Your task to perform on an android device: Search for hotels in Paris Image 0: 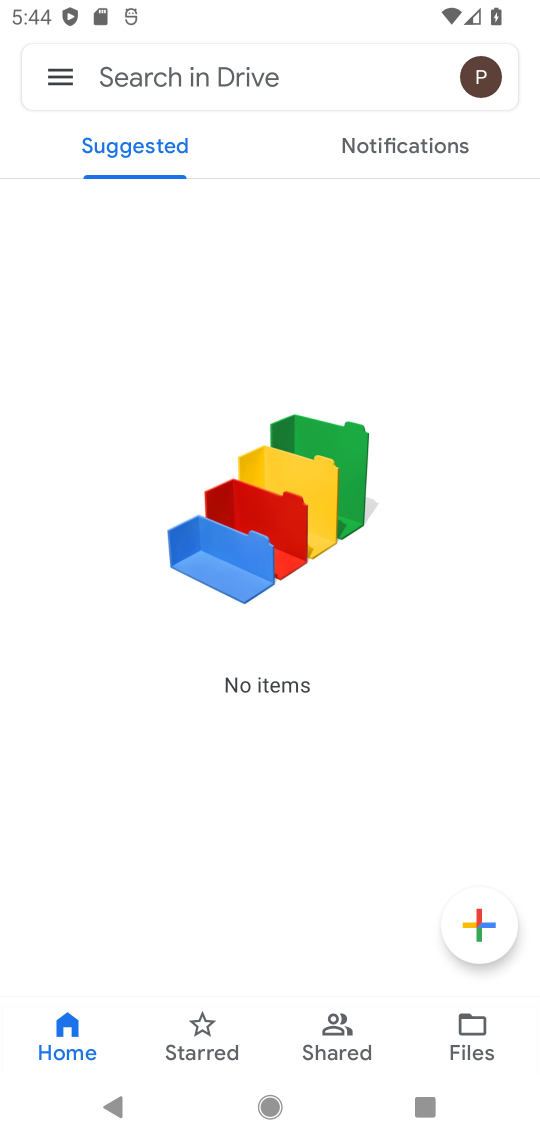
Step 0: press home button
Your task to perform on an android device: Search for hotels in Paris Image 1: 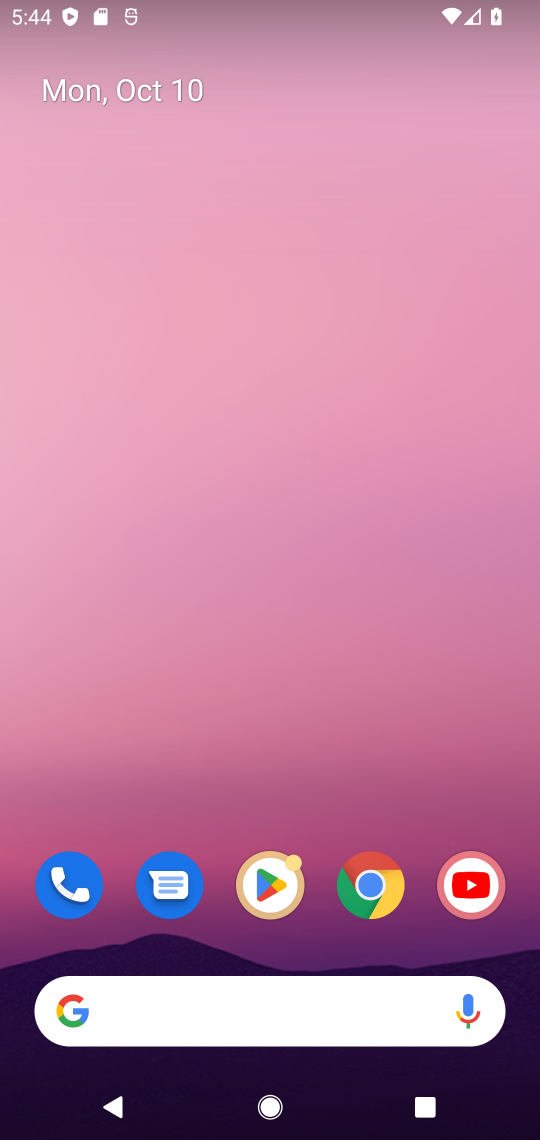
Step 1: click (358, 890)
Your task to perform on an android device: Search for hotels in Paris Image 2: 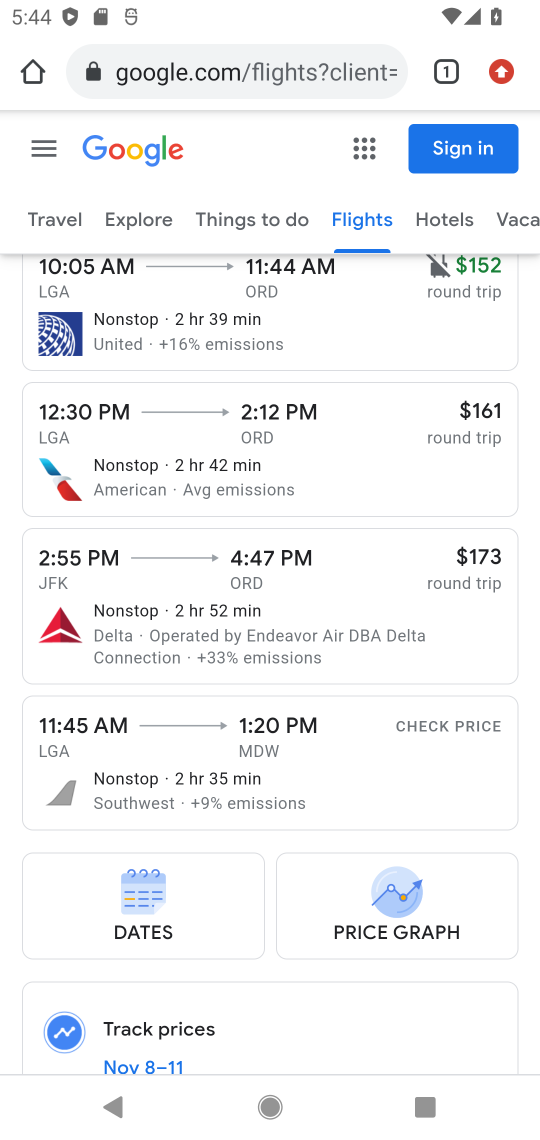
Step 2: click (304, 62)
Your task to perform on an android device: Search for hotels in Paris Image 3: 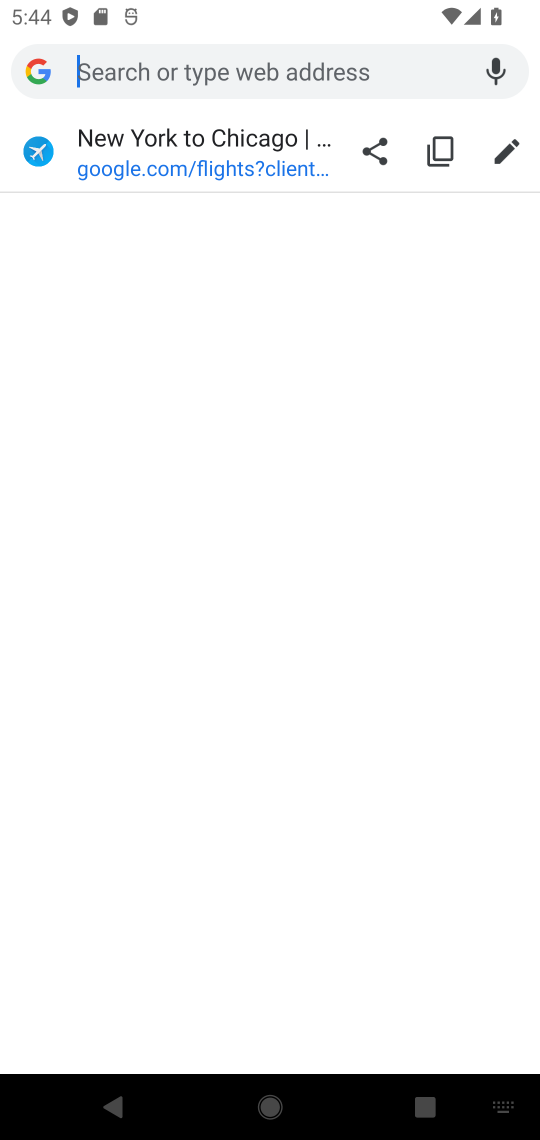
Step 3: type "hotels in Paris"
Your task to perform on an android device: Search for hotels in Paris Image 4: 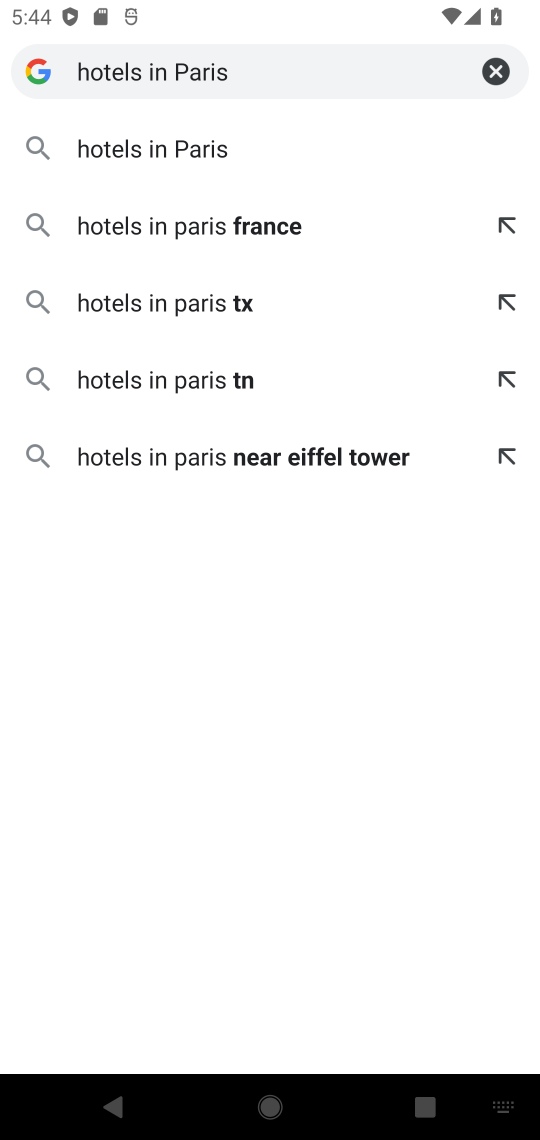
Step 4: click (289, 145)
Your task to perform on an android device: Search for hotels in Paris Image 5: 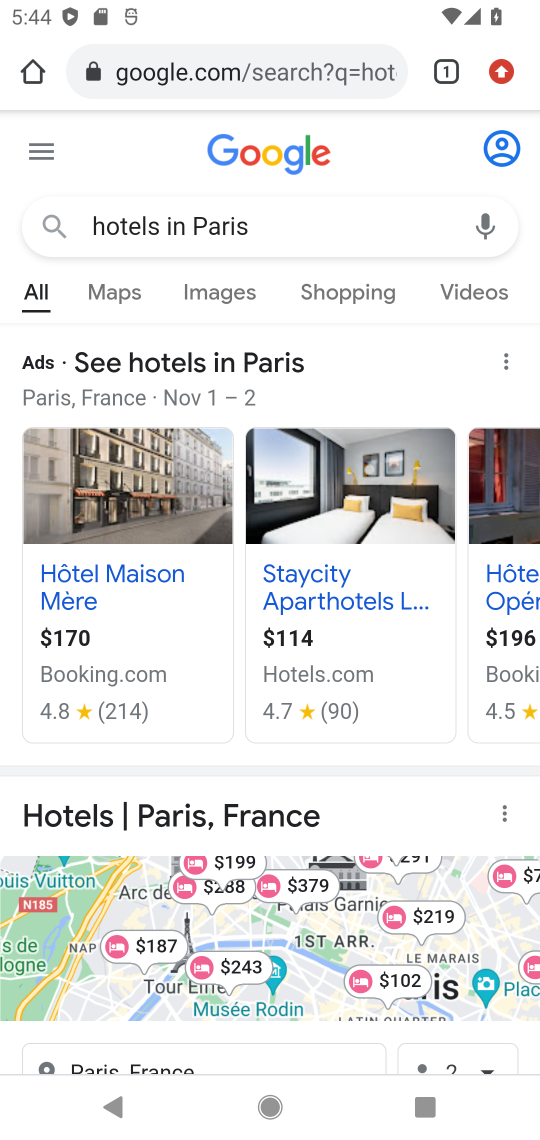
Step 5: drag from (219, 763) to (283, 365)
Your task to perform on an android device: Search for hotels in Paris Image 6: 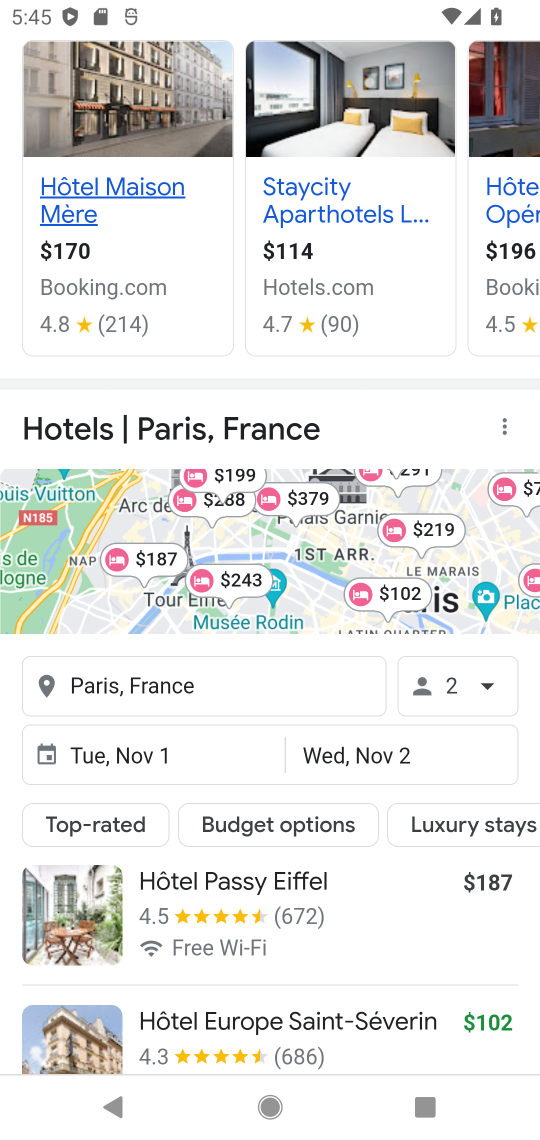
Step 6: drag from (377, 911) to (394, 350)
Your task to perform on an android device: Search for hotels in Paris Image 7: 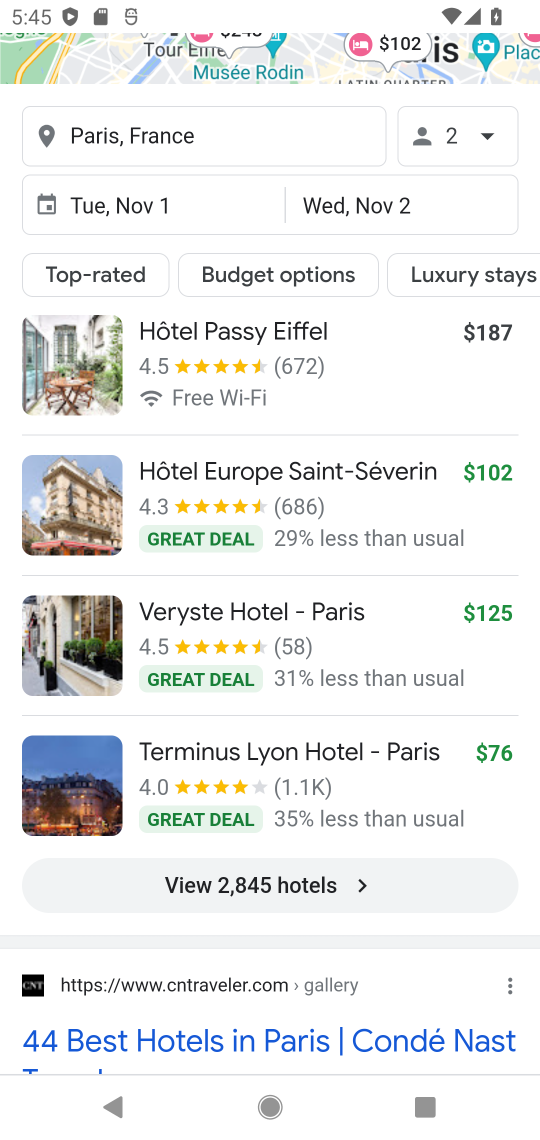
Step 7: click (384, 883)
Your task to perform on an android device: Search for hotels in Paris Image 8: 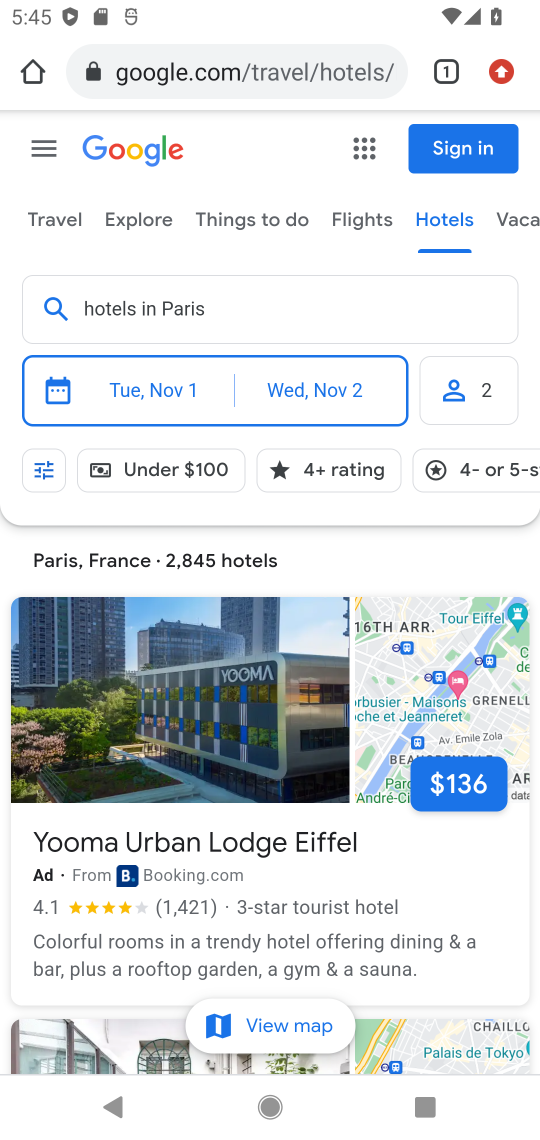
Step 8: drag from (414, 986) to (423, 729)
Your task to perform on an android device: Search for hotels in Paris Image 9: 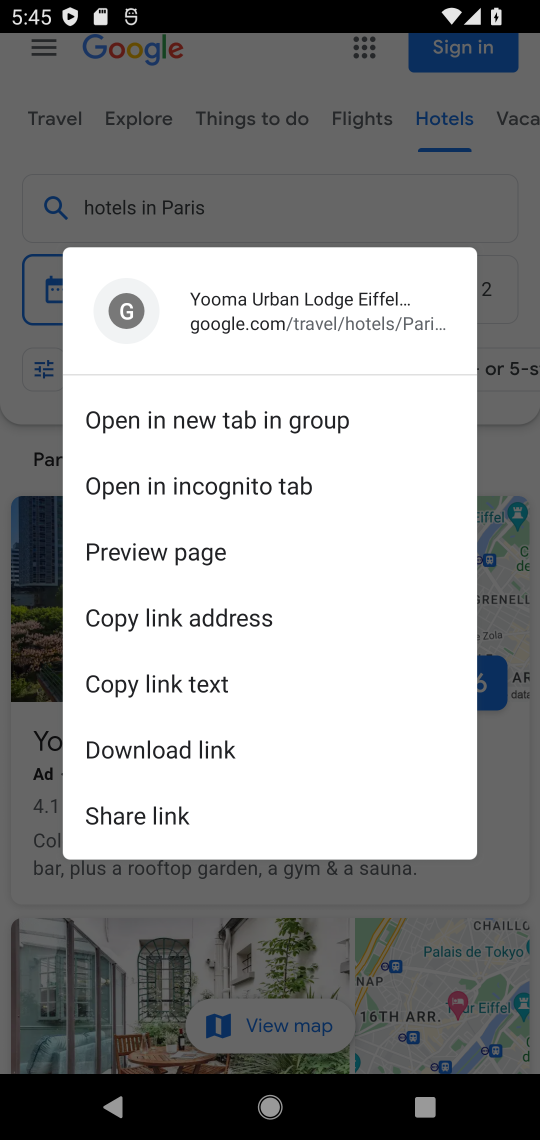
Step 9: click (512, 872)
Your task to perform on an android device: Search for hotels in Paris Image 10: 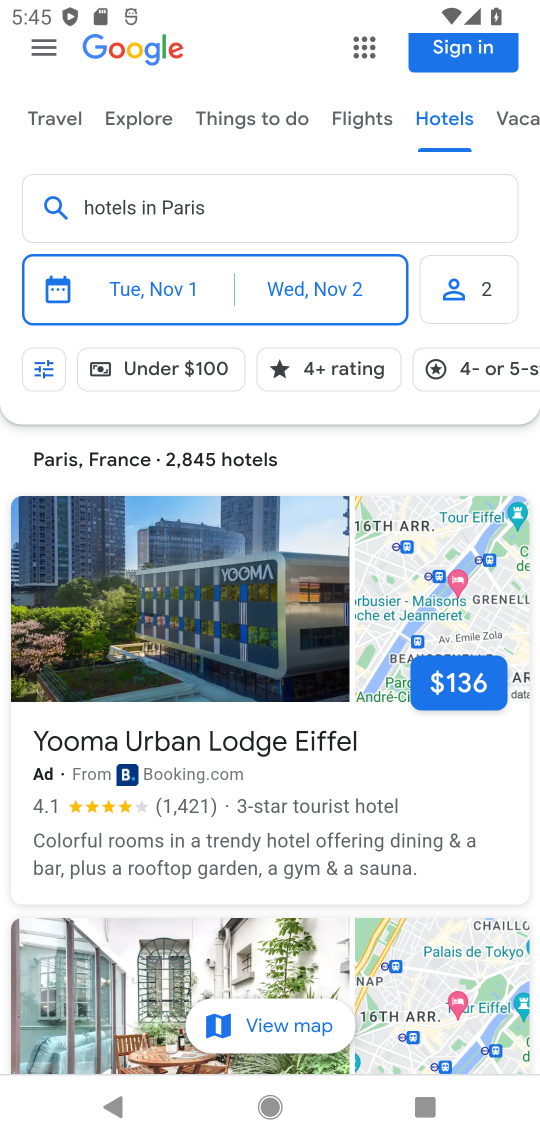
Step 10: task complete